Your task to perform on an android device: What's the weather? Image 0: 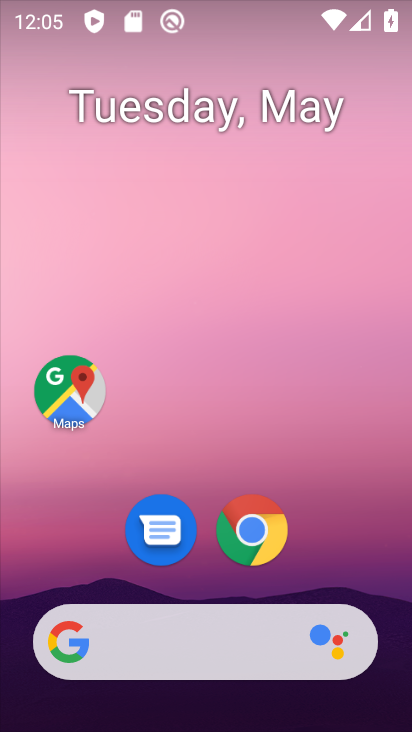
Step 0: drag from (385, 554) to (301, 15)
Your task to perform on an android device: What's the weather? Image 1: 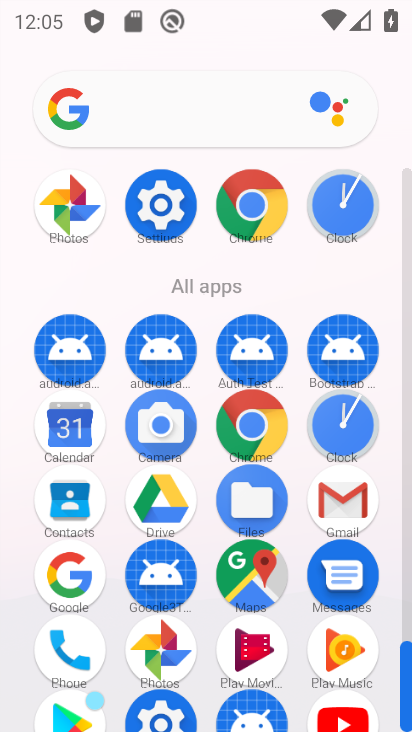
Step 1: drag from (3, 529) to (10, 207)
Your task to perform on an android device: What's the weather? Image 2: 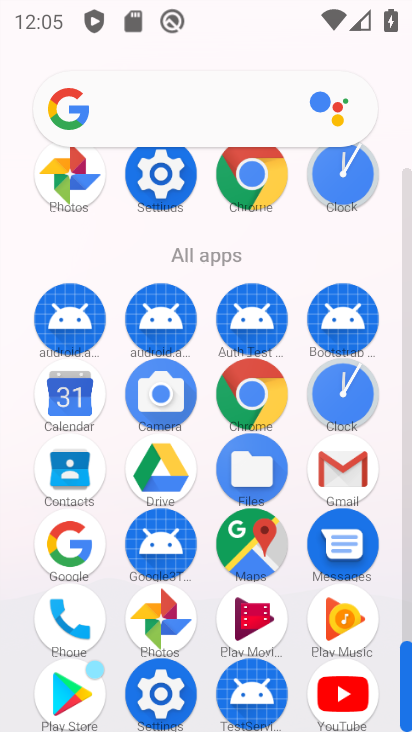
Step 2: click (247, 172)
Your task to perform on an android device: What's the weather? Image 3: 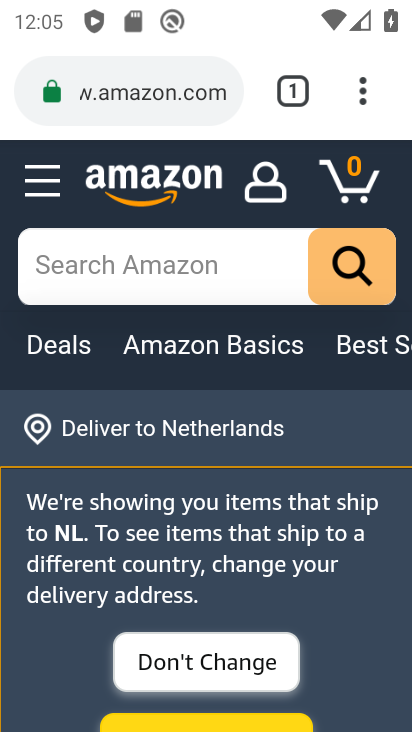
Step 3: click (158, 82)
Your task to perform on an android device: What's the weather? Image 4: 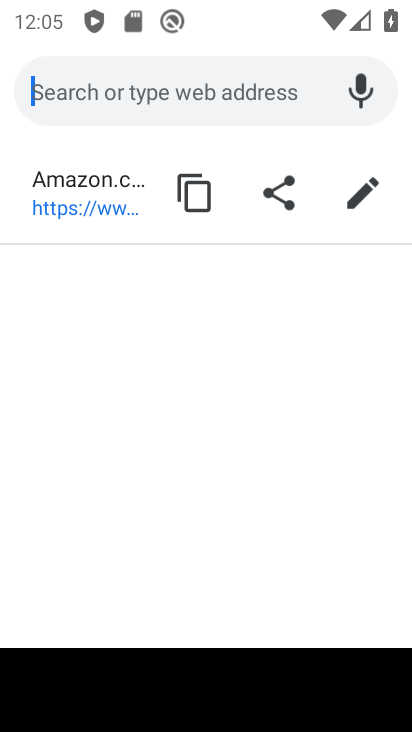
Step 4: type "What's the weather?"
Your task to perform on an android device: What's the weather? Image 5: 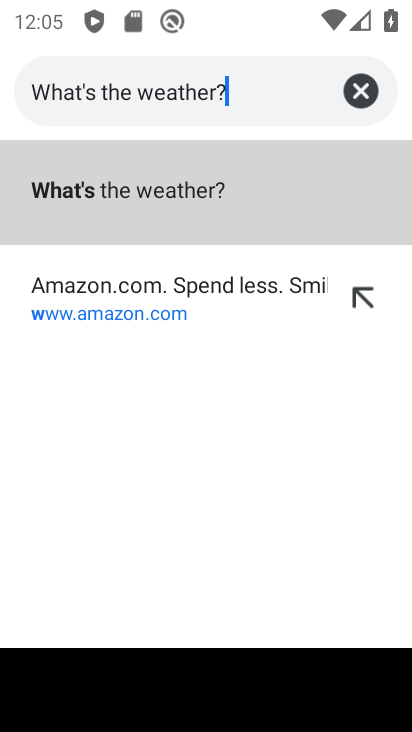
Step 5: type ""
Your task to perform on an android device: What's the weather? Image 6: 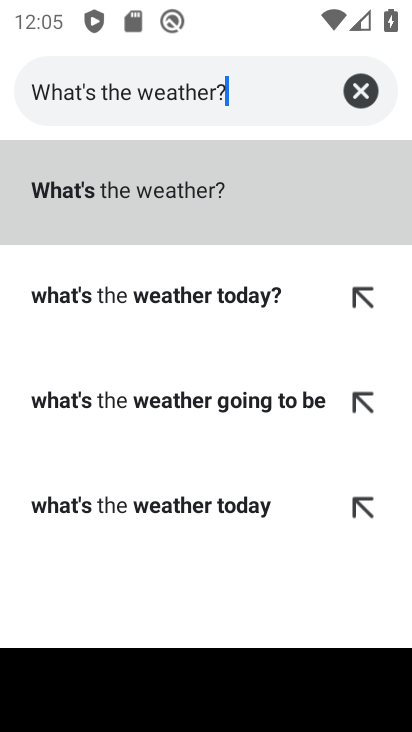
Step 6: click (188, 189)
Your task to perform on an android device: What's the weather? Image 7: 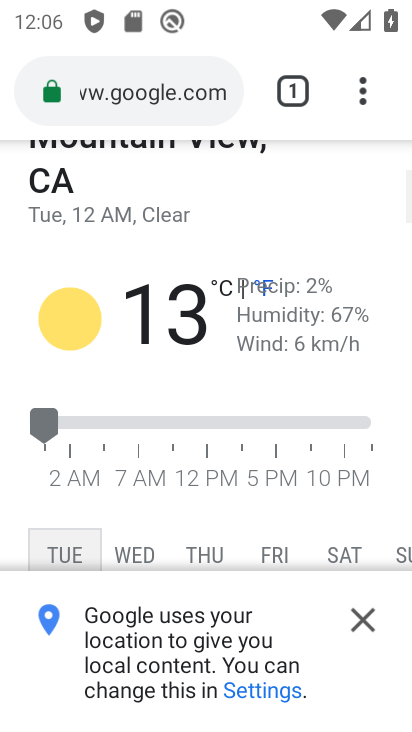
Step 7: click (364, 627)
Your task to perform on an android device: What's the weather? Image 8: 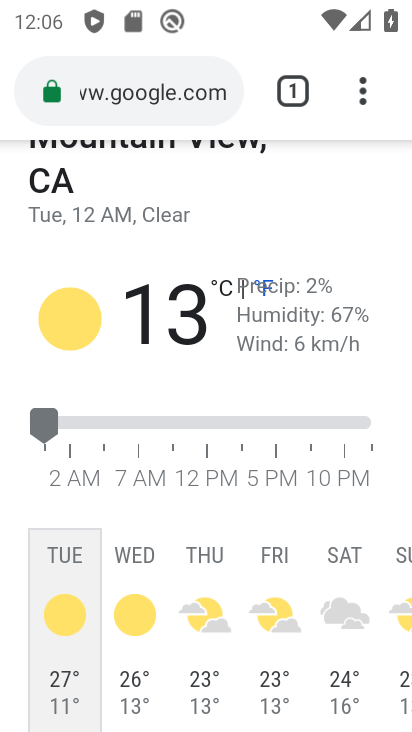
Step 8: task complete